Your task to perform on an android device: Open the calendar app, open the side menu, and click the "Day" option Image 0: 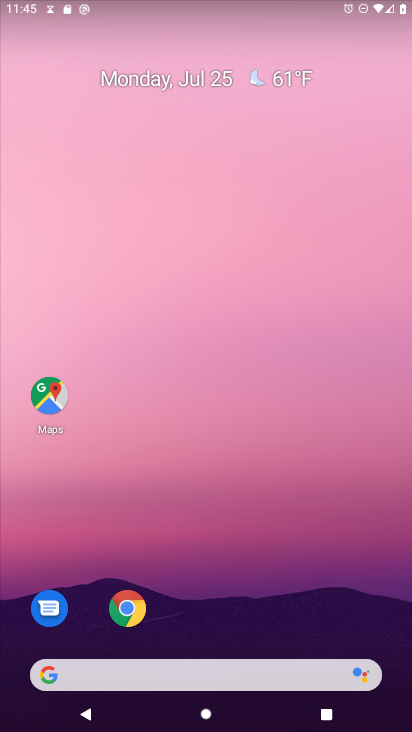
Step 0: click (125, 607)
Your task to perform on an android device: Open the calendar app, open the side menu, and click the "Day" option Image 1: 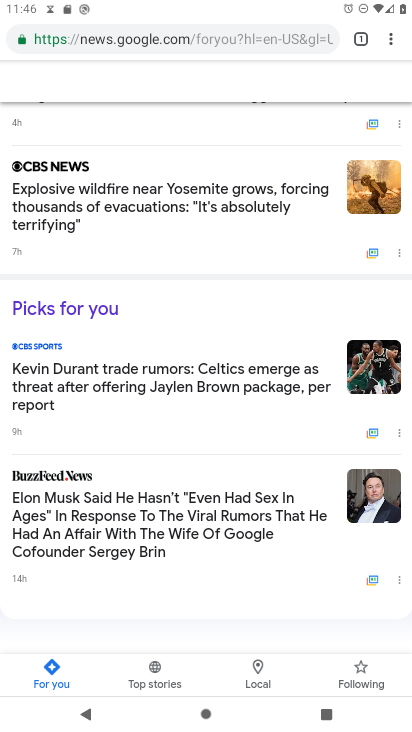
Step 1: press home button
Your task to perform on an android device: Open the calendar app, open the side menu, and click the "Day" option Image 2: 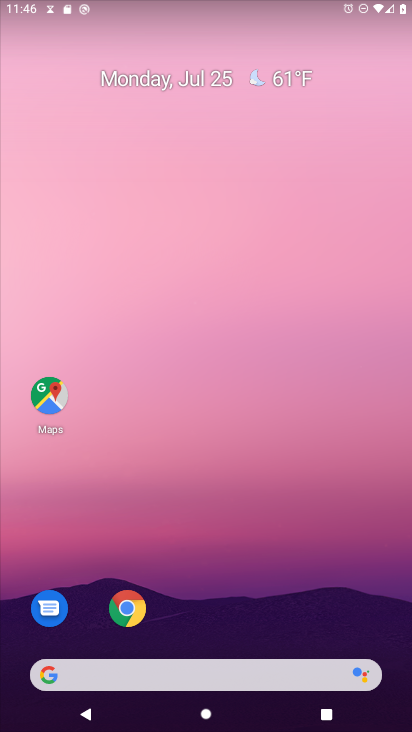
Step 2: drag from (188, 673) to (264, 131)
Your task to perform on an android device: Open the calendar app, open the side menu, and click the "Day" option Image 3: 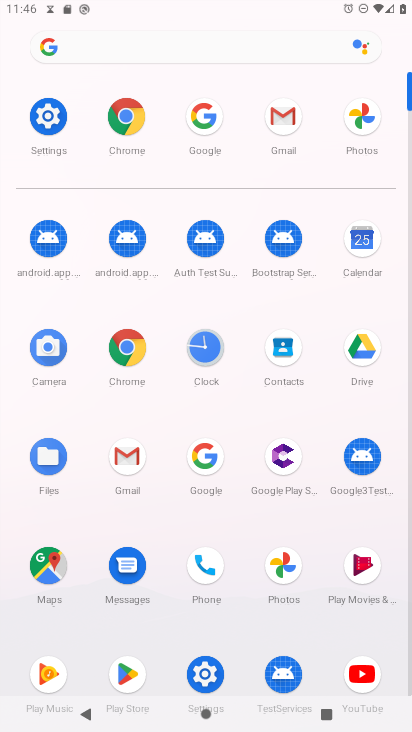
Step 3: click (360, 242)
Your task to perform on an android device: Open the calendar app, open the side menu, and click the "Day" option Image 4: 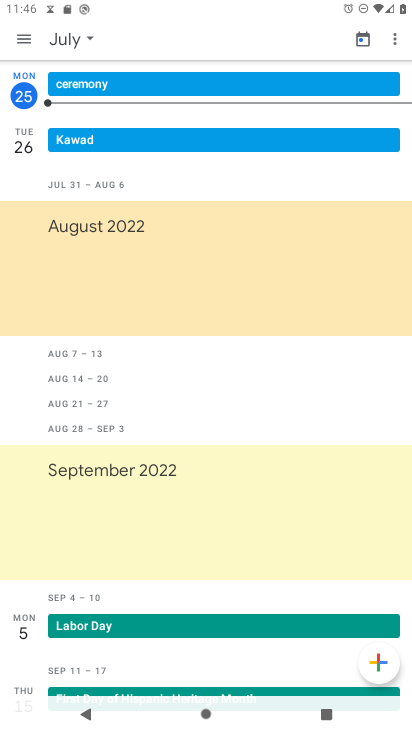
Step 4: click (25, 41)
Your task to perform on an android device: Open the calendar app, open the side menu, and click the "Day" option Image 5: 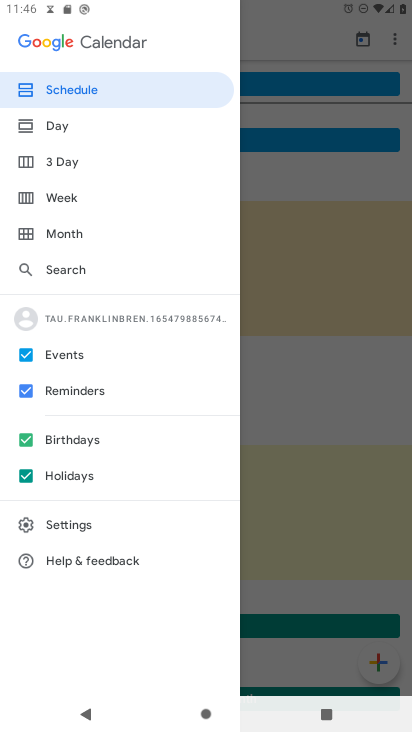
Step 5: click (52, 128)
Your task to perform on an android device: Open the calendar app, open the side menu, and click the "Day" option Image 6: 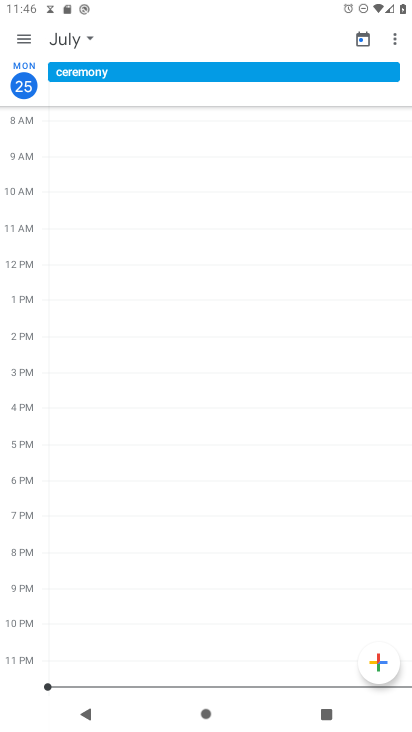
Step 6: task complete